Your task to perform on an android device: change notifications settings Image 0: 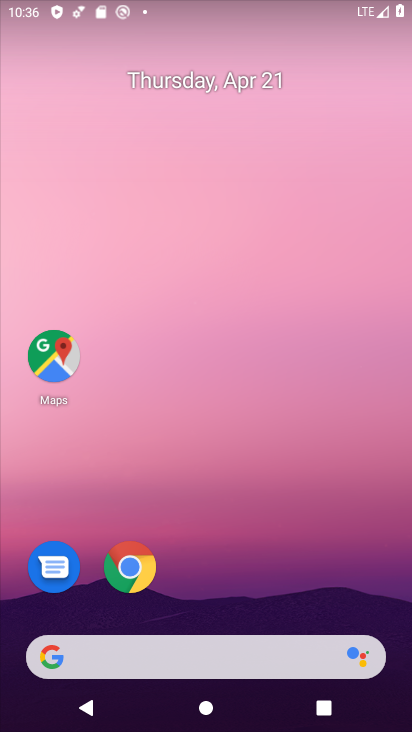
Step 0: drag from (232, 605) to (403, 34)
Your task to perform on an android device: change notifications settings Image 1: 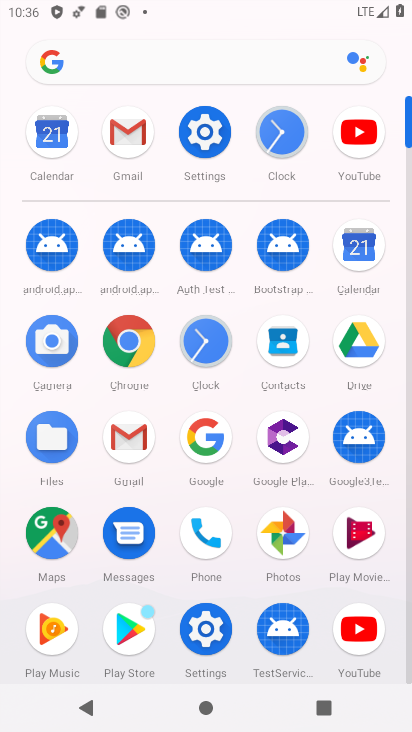
Step 1: click (214, 135)
Your task to perform on an android device: change notifications settings Image 2: 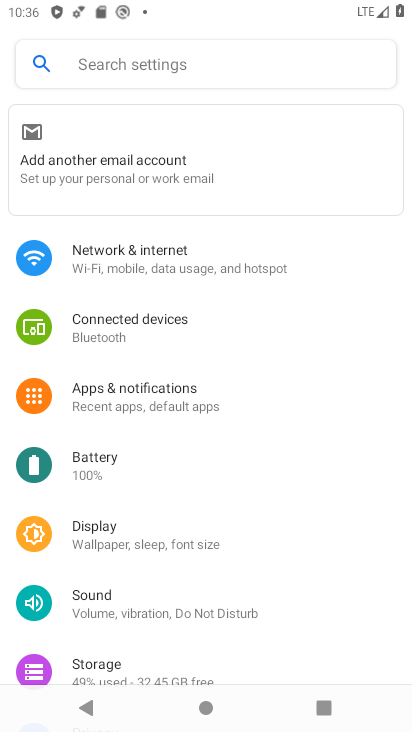
Step 2: click (176, 405)
Your task to perform on an android device: change notifications settings Image 3: 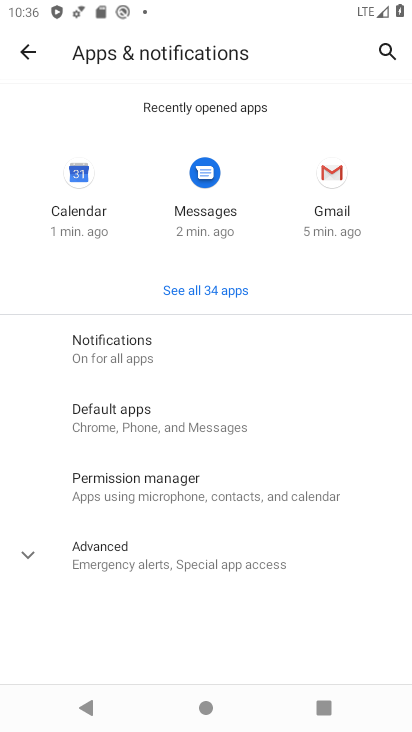
Step 3: click (113, 338)
Your task to perform on an android device: change notifications settings Image 4: 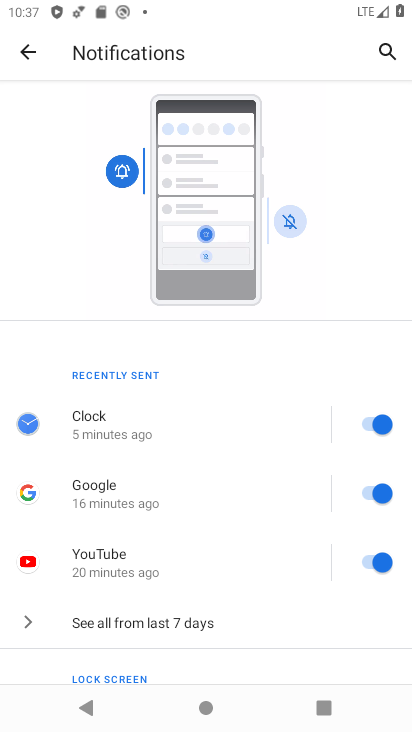
Step 4: task complete